Your task to perform on an android device: Open maps Image 0: 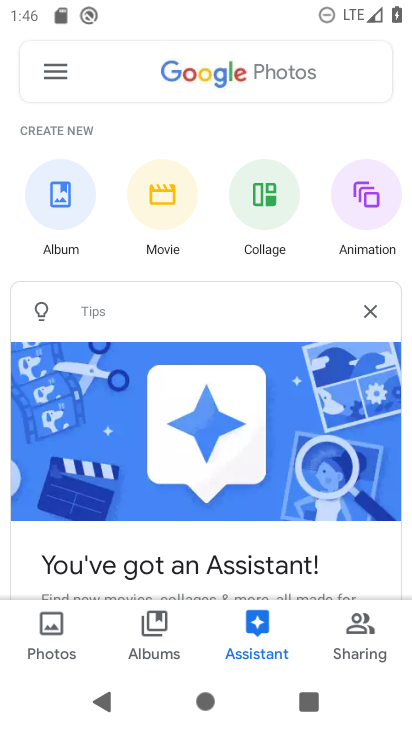
Step 0: press home button
Your task to perform on an android device: Open maps Image 1: 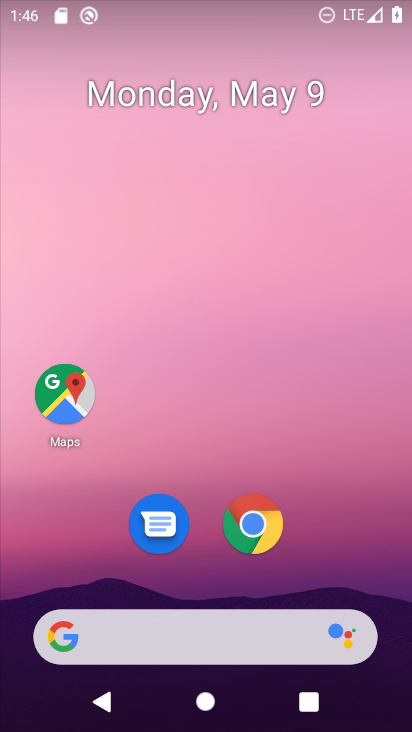
Step 1: click (55, 389)
Your task to perform on an android device: Open maps Image 2: 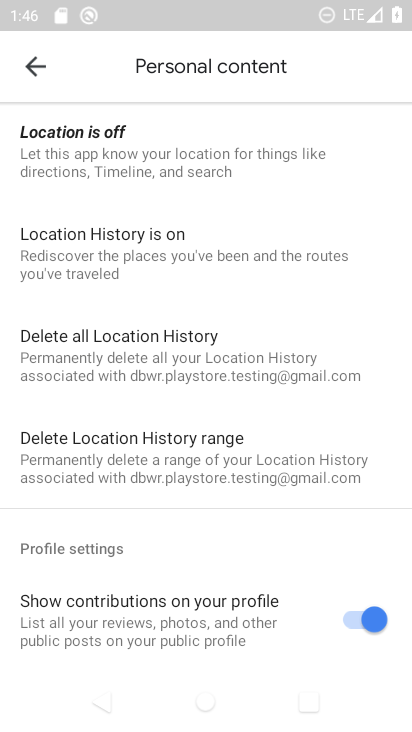
Step 2: click (27, 56)
Your task to perform on an android device: Open maps Image 3: 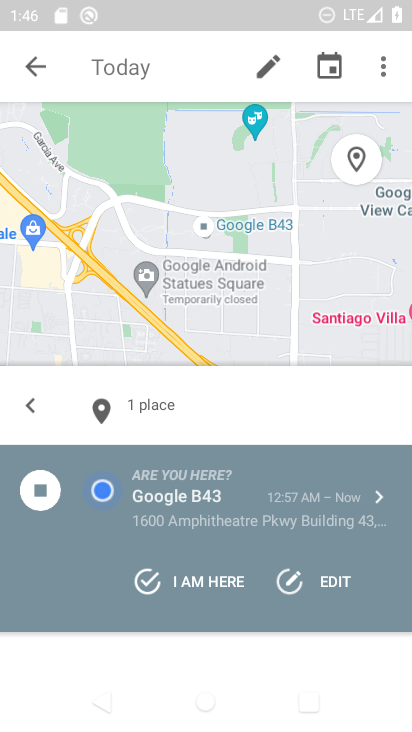
Step 3: click (33, 56)
Your task to perform on an android device: Open maps Image 4: 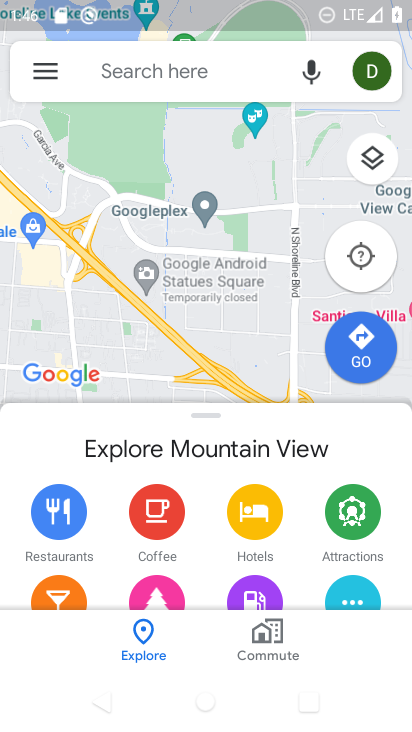
Step 4: click (123, 58)
Your task to perform on an android device: Open maps Image 5: 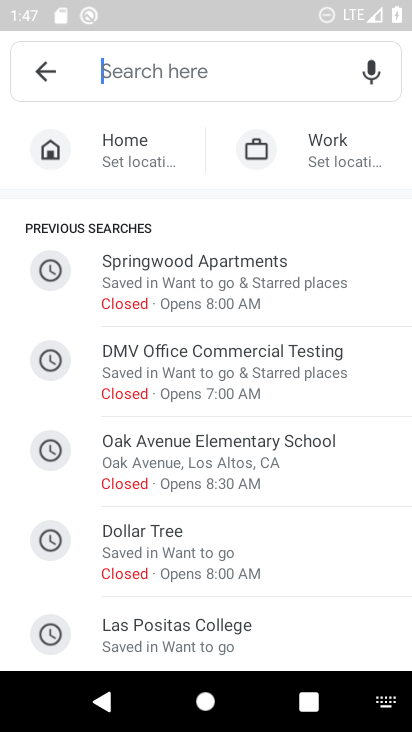
Step 5: task complete